Your task to perform on an android device: delete a single message in the gmail app Image 0: 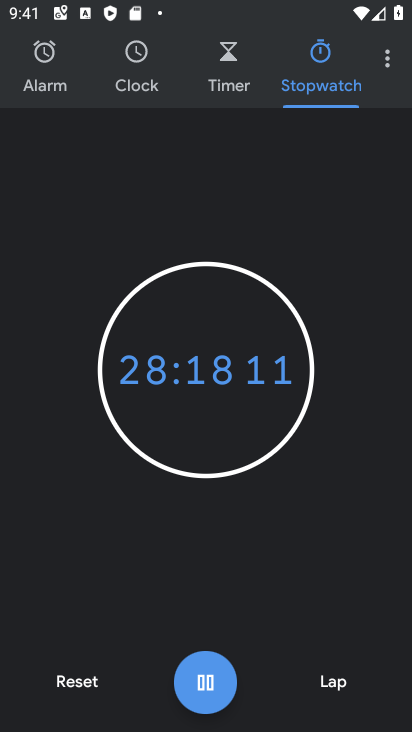
Step 0: drag from (295, 623) to (219, 67)
Your task to perform on an android device: delete a single message in the gmail app Image 1: 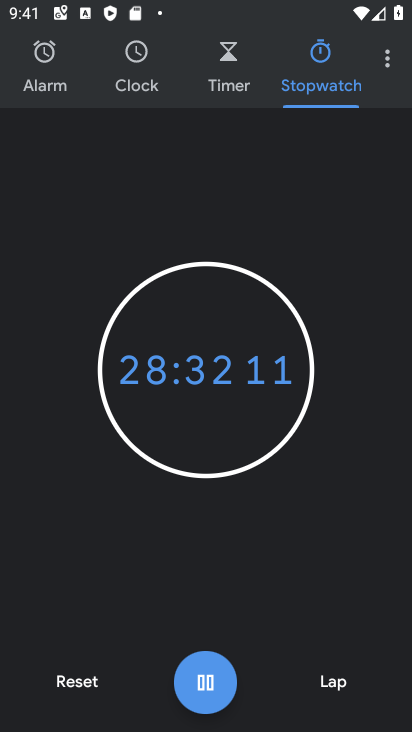
Step 1: press home button
Your task to perform on an android device: delete a single message in the gmail app Image 2: 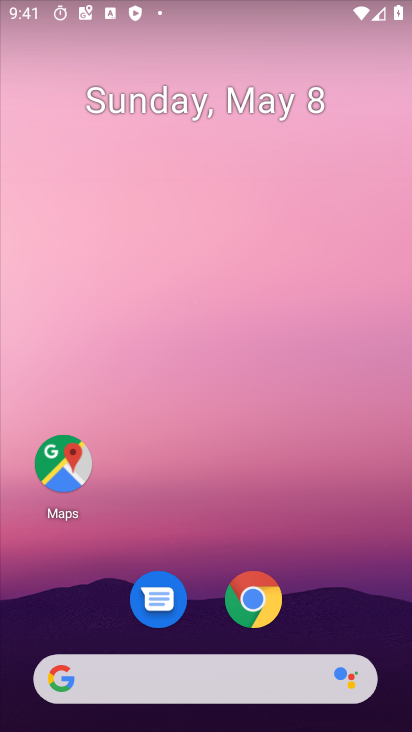
Step 2: drag from (252, 619) to (234, 108)
Your task to perform on an android device: delete a single message in the gmail app Image 3: 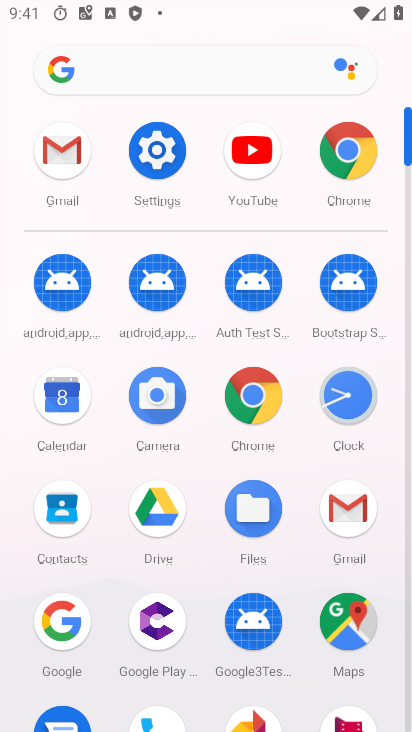
Step 3: click (347, 509)
Your task to perform on an android device: delete a single message in the gmail app Image 4: 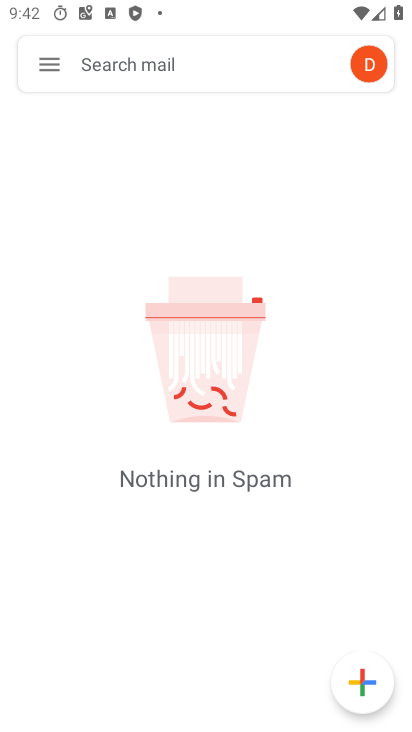
Step 4: click (46, 61)
Your task to perform on an android device: delete a single message in the gmail app Image 5: 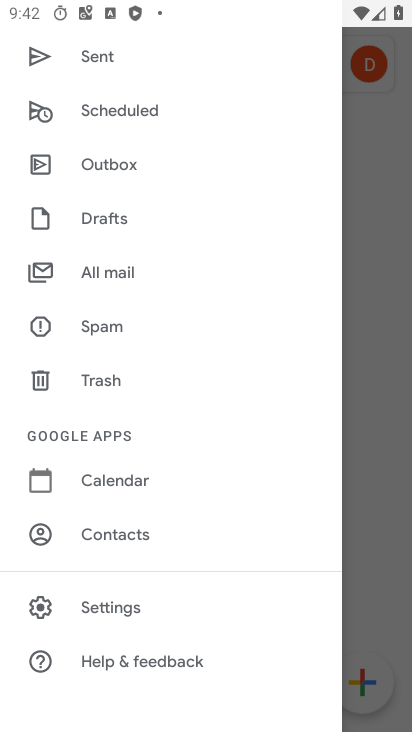
Step 5: click (117, 285)
Your task to perform on an android device: delete a single message in the gmail app Image 6: 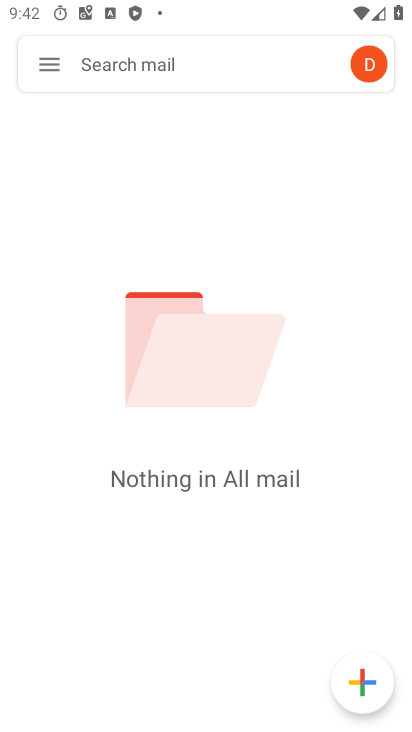
Step 6: task complete